Your task to perform on an android device: Open the calendar app, open the side menu, and click the "Day" option Image 0: 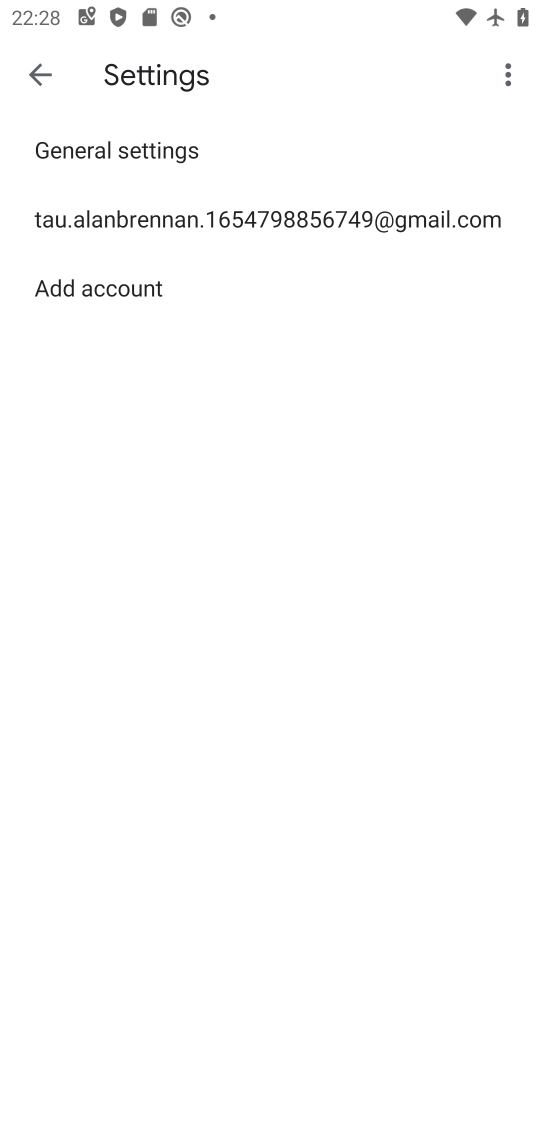
Step 0: press home button
Your task to perform on an android device: Open the calendar app, open the side menu, and click the "Day" option Image 1: 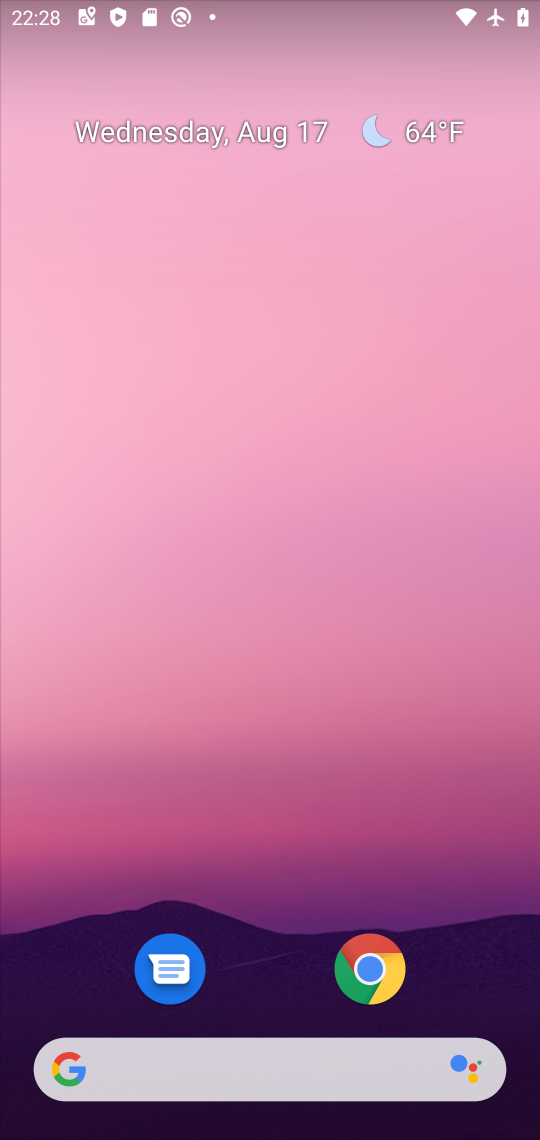
Step 1: drag from (282, 989) to (216, 262)
Your task to perform on an android device: Open the calendar app, open the side menu, and click the "Day" option Image 2: 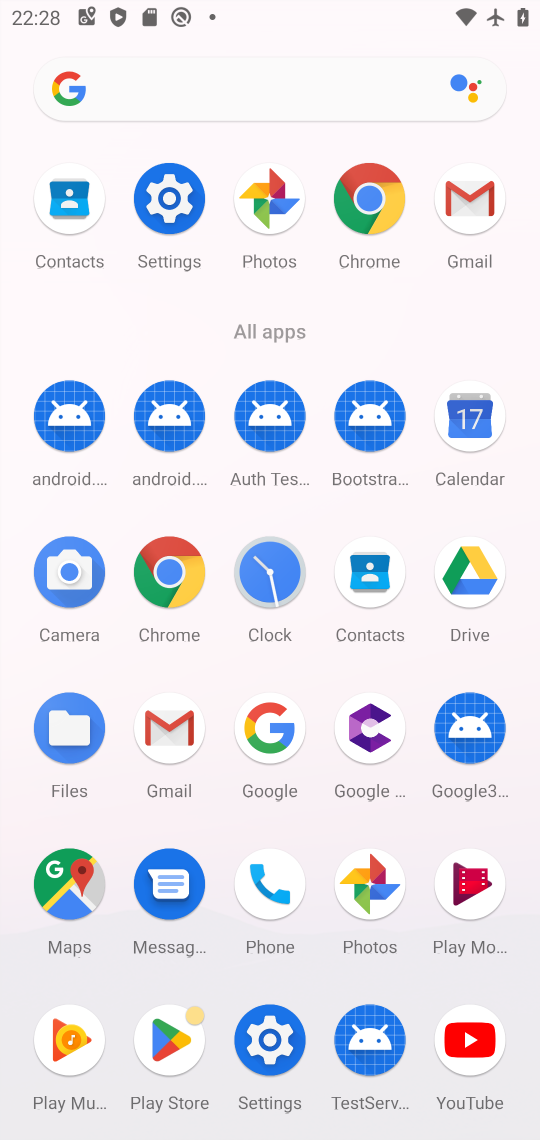
Step 2: click (464, 429)
Your task to perform on an android device: Open the calendar app, open the side menu, and click the "Day" option Image 3: 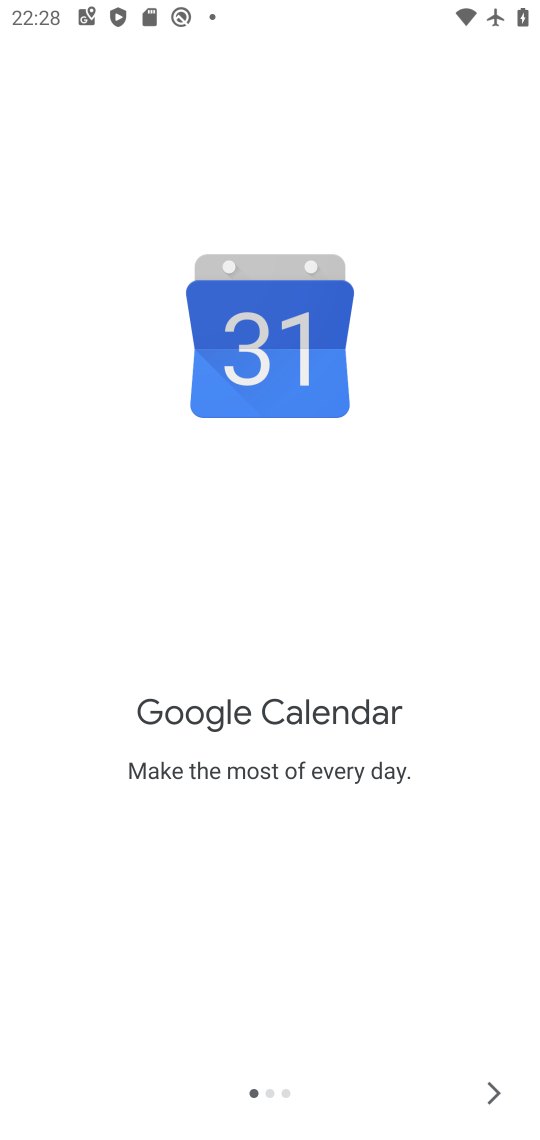
Step 3: click (490, 1084)
Your task to perform on an android device: Open the calendar app, open the side menu, and click the "Day" option Image 4: 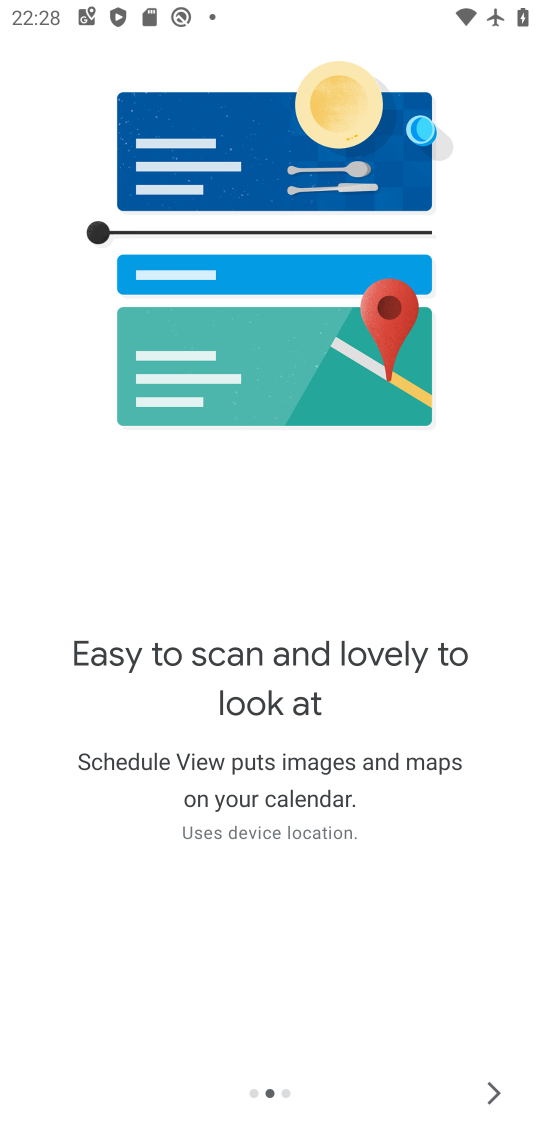
Step 4: click (494, 1101)
Your task to perform on an android device: Open the calendar app, open the side menu, and click the "Day" option Image 5: 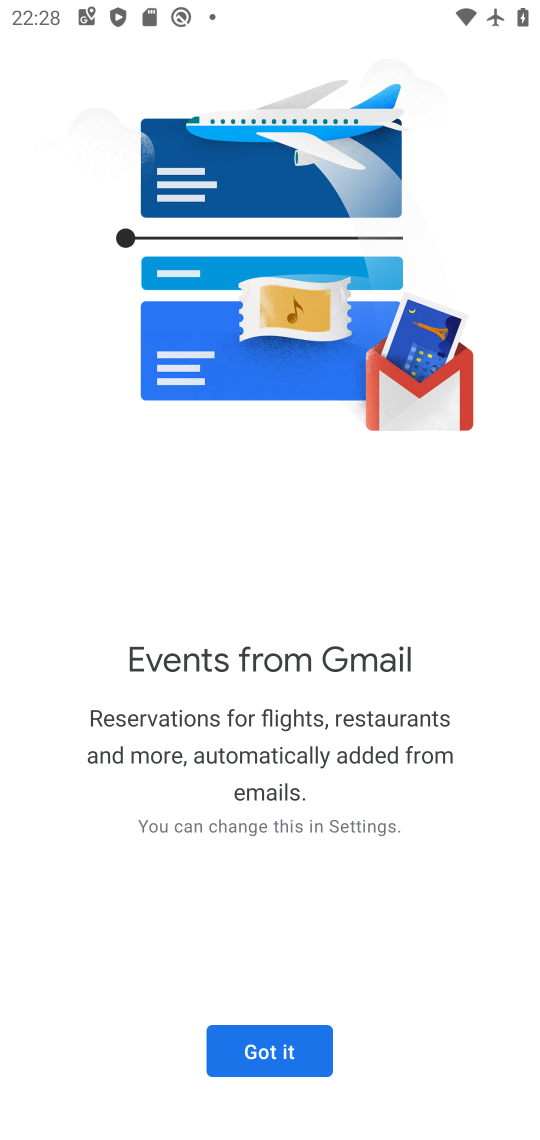
Step 5: click (294, 1056)
Your task to perform on an android device: Open the calendar app, open the side menu, and click the "Day" option Image 6: 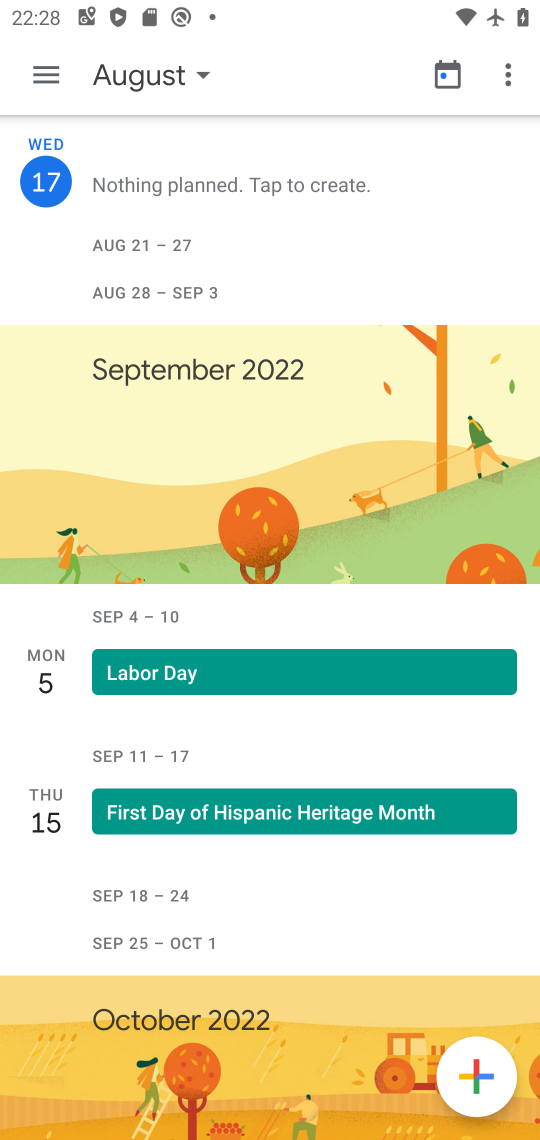
Step 6: click (36, 65)
Your task to perform on an android device: Open the calendar app, open the side menu, and click the "Day" option Image 7: 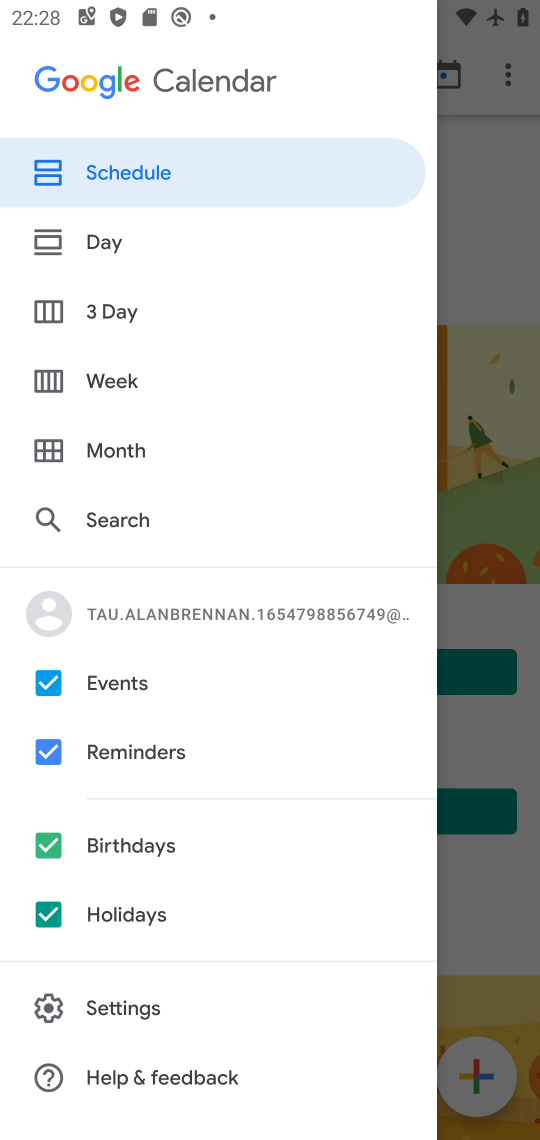
Step 7: click (107, 231)
Your task to perform on an android device: Open the calendar app, open the side menu, and click the "Day" option Image 8: 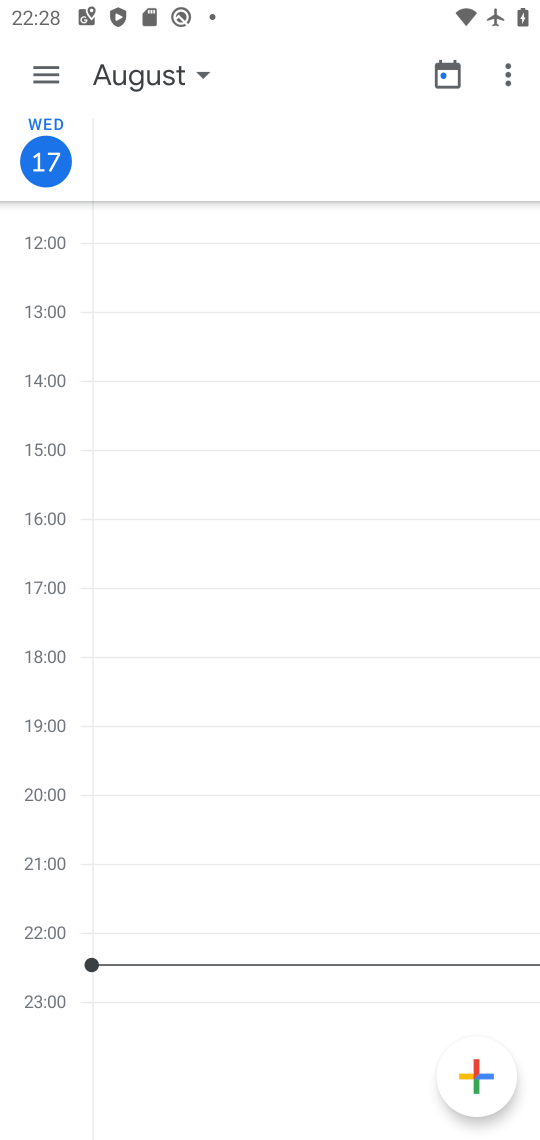
Step 8: task complete